Your task to perform on an android device: check google app version Image 0: 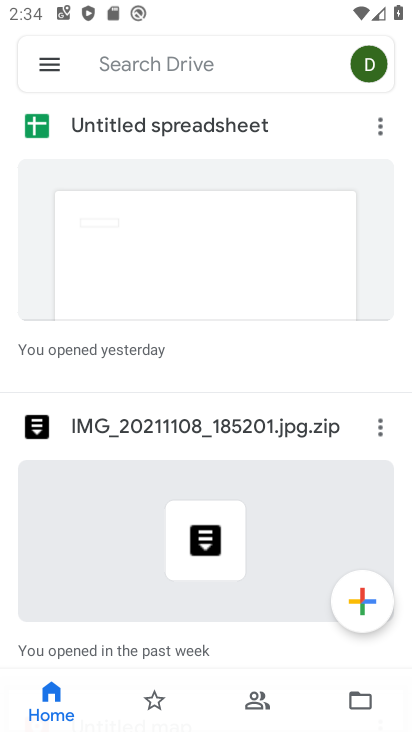
Step 0: press home button
Your task to perform on an android device: check google app version Image 1: 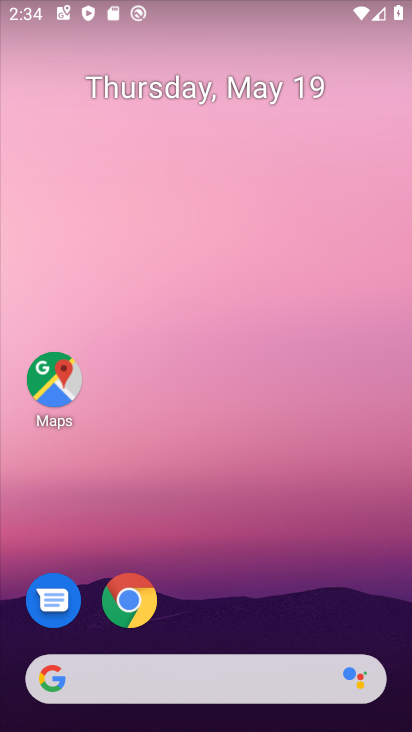
Step 1: drag from (382, 607) to (356, 224)
Your task to perform on an android device: check google app version Image 2: 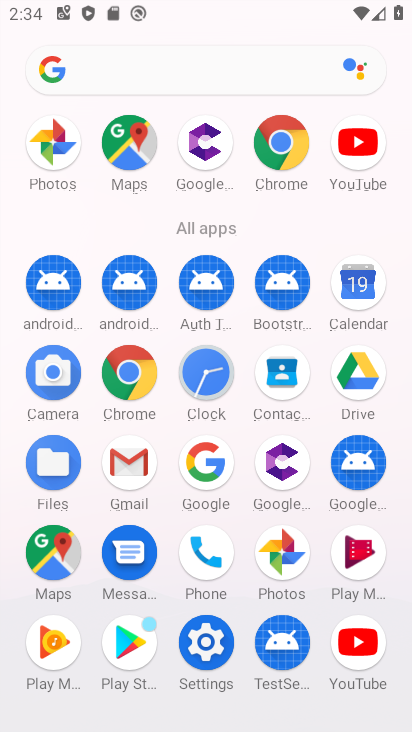
Step 2: click (118, 480)
Your task to perform on an android device: check google app version Image 3: 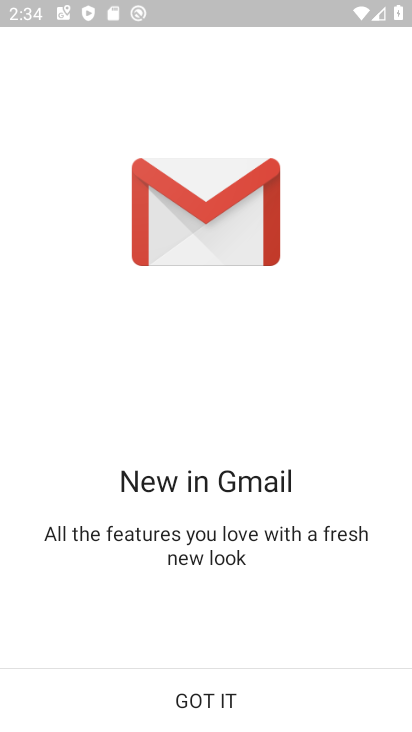
Step 3: press home button
Your task to perform on an android device: check google app version Image 4: 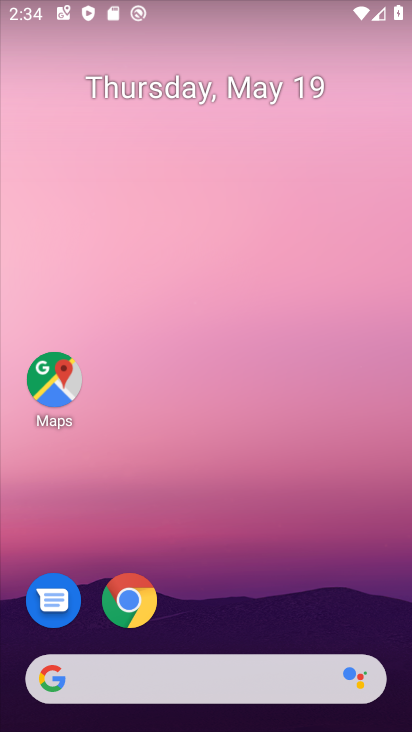
Step 4: drag from (375, 599) to (336, 268)
Your task to perform on an android device: check google app version Image 5: 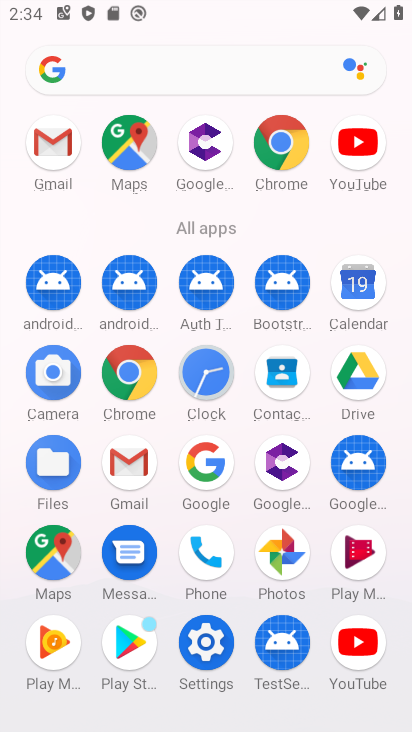
Step 5: click (201, 468)
Your task to perform on an android device: check google app version Image 6: 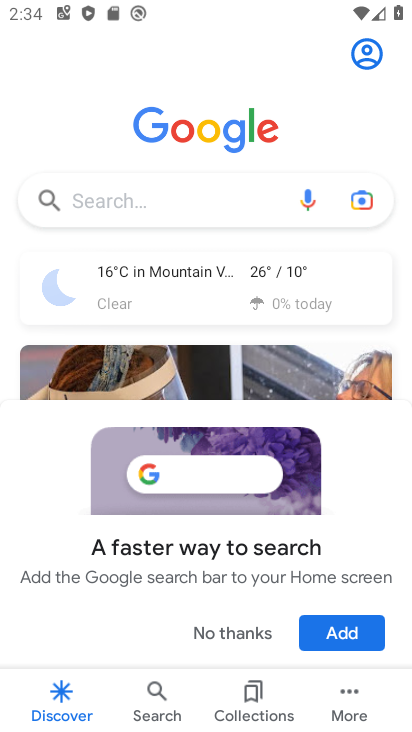
Step 6: click (348, 709)
Your task to perform on an android device: check google app version Image 7: 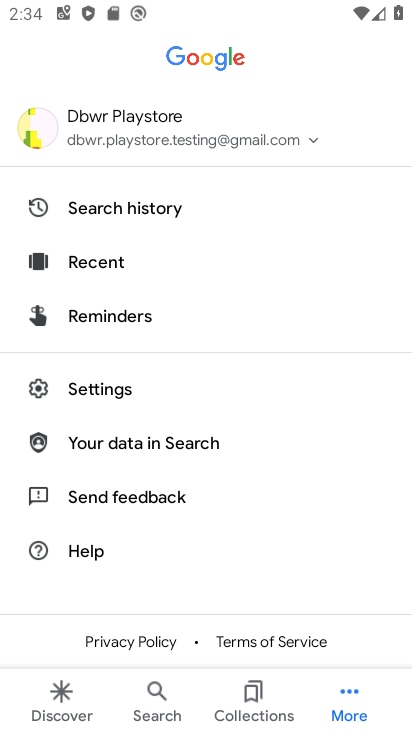
Step 7: click (103, 387)
Your task to perform on an android device: check google app version Image 8: 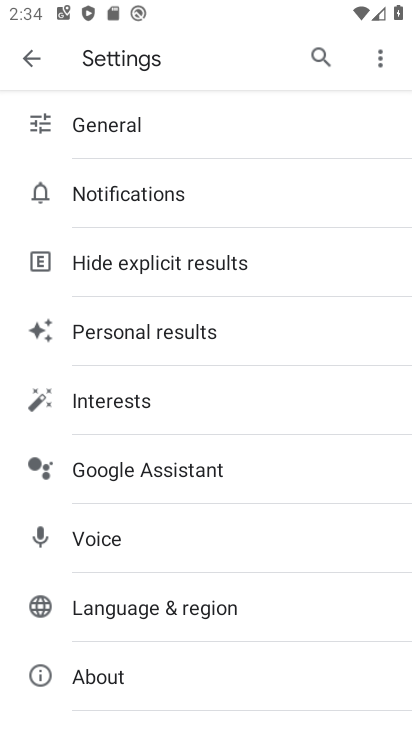
Step 8: click (99, 675)
Your task to perform on an android device: check google app version Image 9: 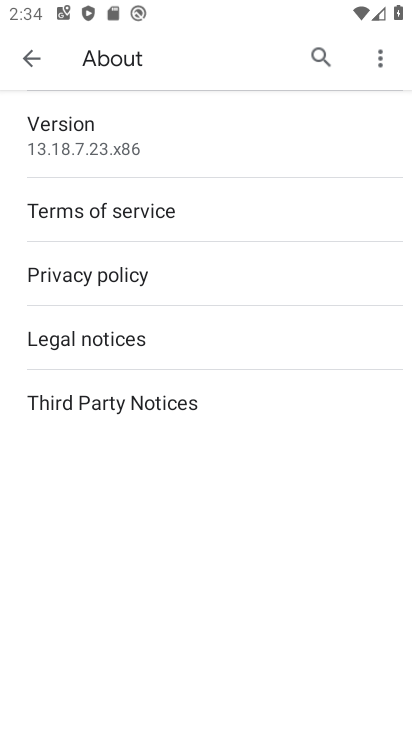
Step 9: click (94, 140)
Your task to perform on an android device: check google app version Image 10: 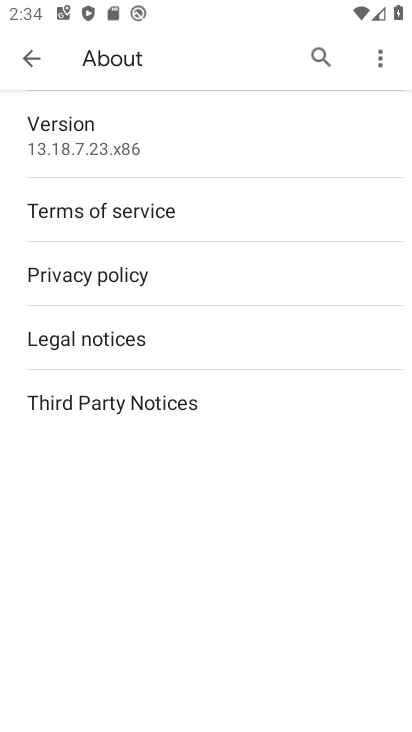
Step 10: click (103, 136)
Your task to perform on an android device: check google app version Image 11: 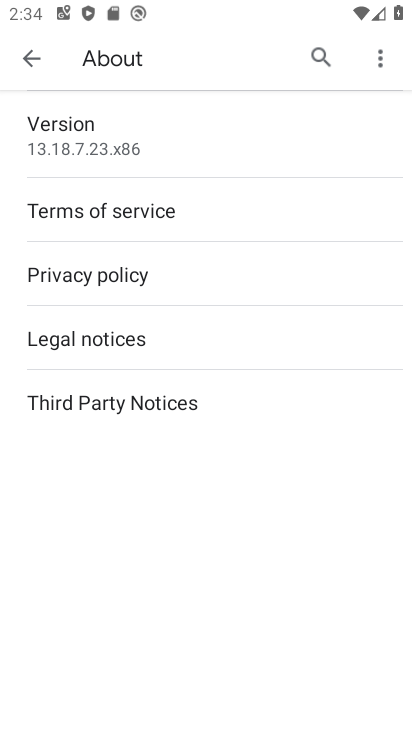
Step 11: task complete